Your task to perform on an android device: Check the weather Image 0: 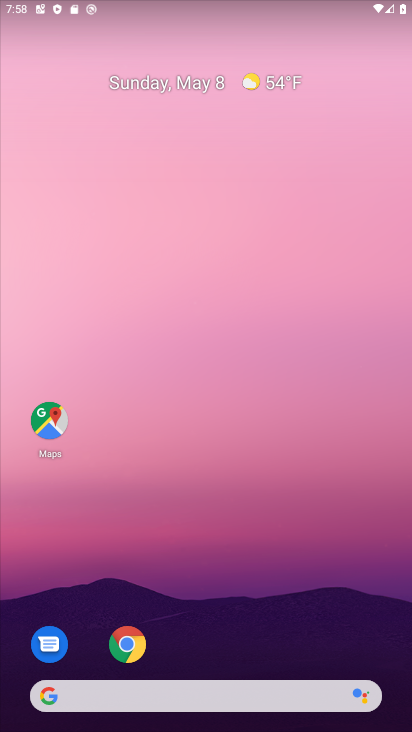
Step 0: click (302, 188)
Your task to perform on an android device: Check the weather Image 1: 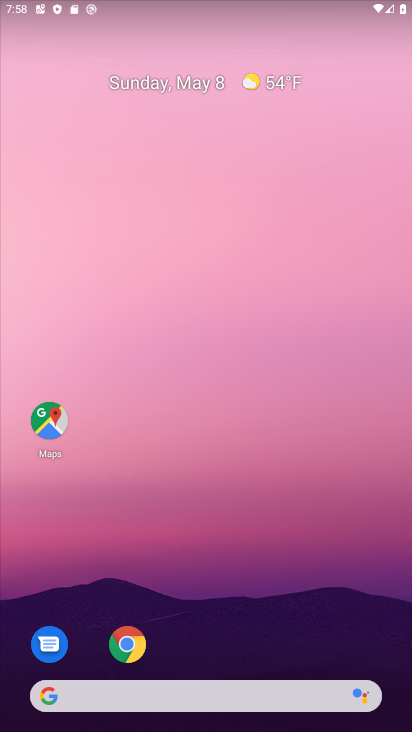
Step 1: drag from (207, 660) to (290, 27)
Your task to perform on an android device: Check the weather Image 2: 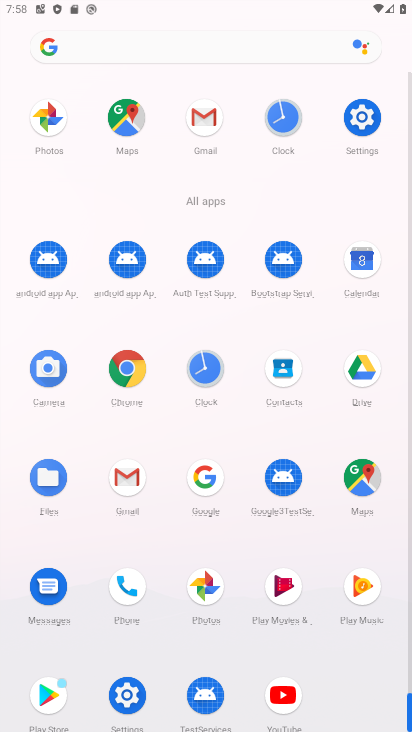
Step 2: click (203, 365)
Your task to perform on an android device: Check the weather Image 3: 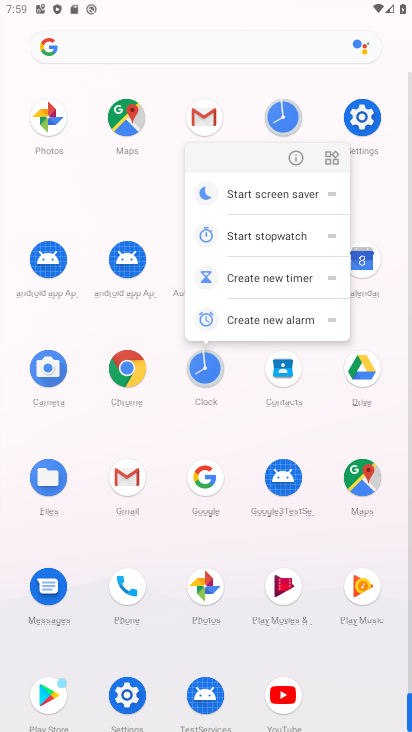
Step 3: click (155, 43)
Your task to perform on an android device: Check the weather Image 4: 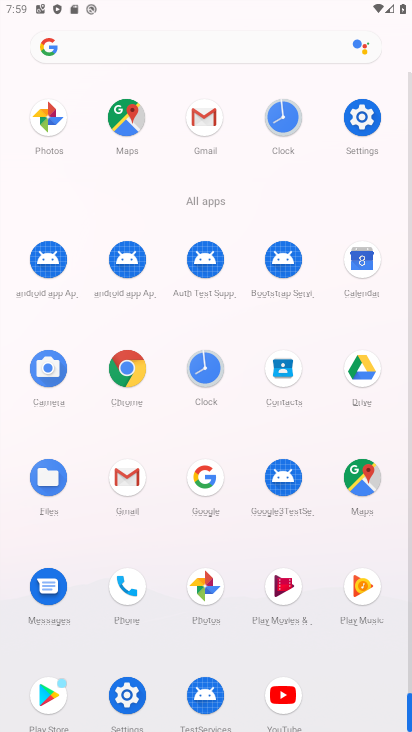
Step 4: click (187, 51)
Your task to perform on an android device: Check the weather Image 5: 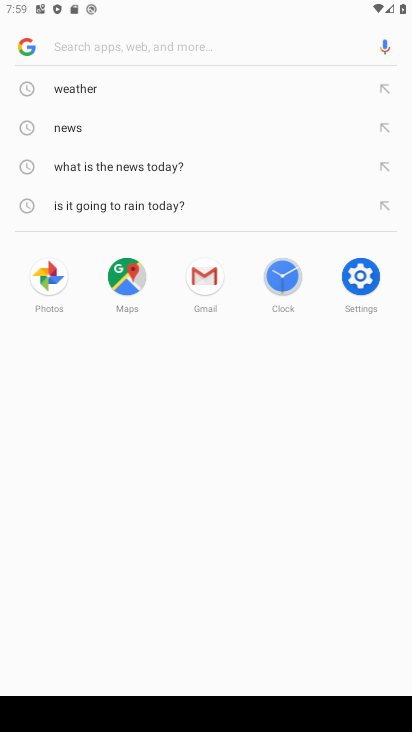
Step 5: click (102, 92)
Your task to perform on an android device: Check the weather Image 6: 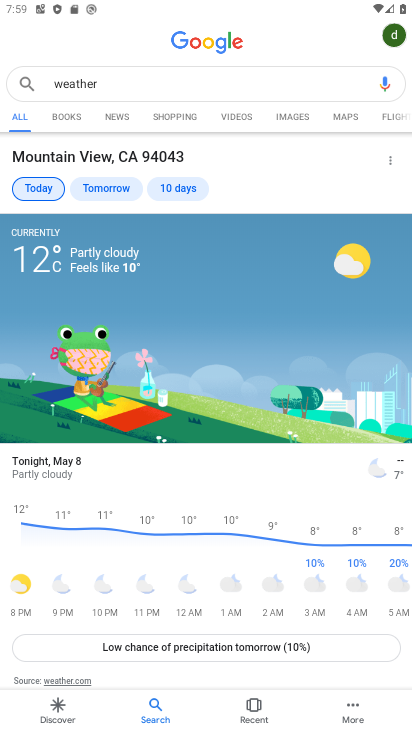
Step 6: task complete